Your task to perform on an android device: Go to ESPN.com Image 0: 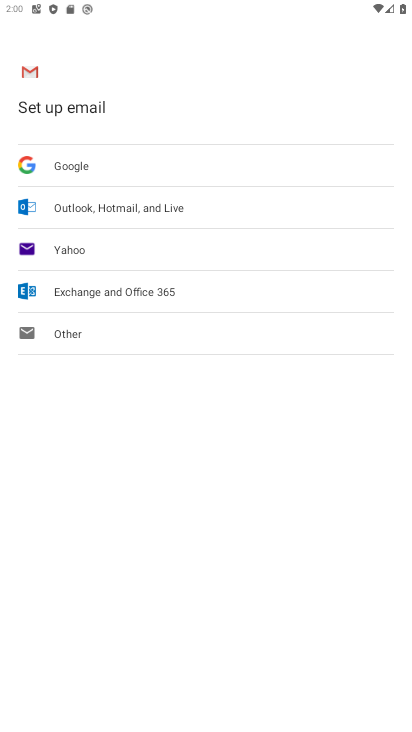
Step 0: press home button
Your task to perform on an android device: Go to ESPN.com Image 1: 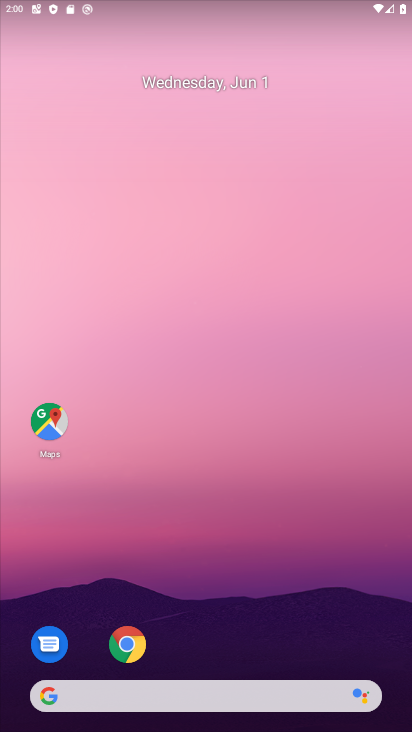
Step 1: click (125, 640)
Your task to perform on an android device: Go to ESPN.com Image 2: 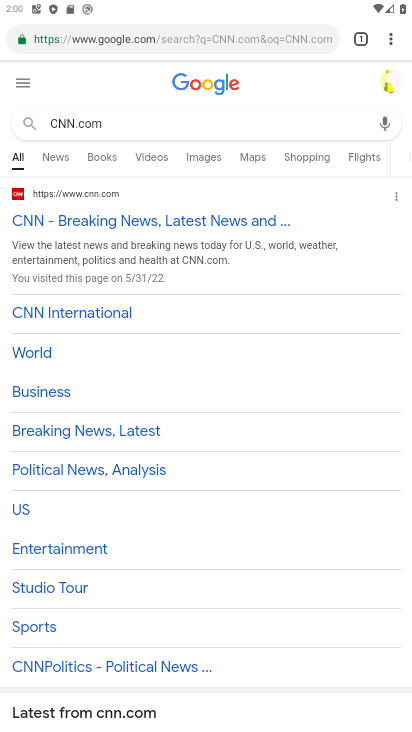
Step 2: click (132, 31)
Your task to perform on an android device: Go to ESPN.com Image 3: 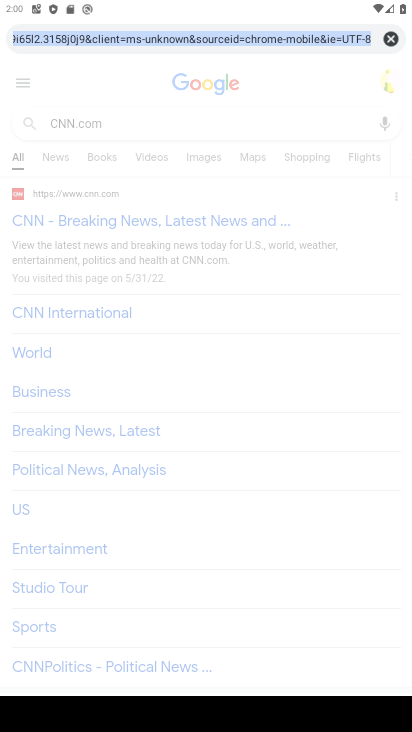
Step 3: type "ESPN.com"
Your task to perform on an android device: Go to ESPN.com Image 4: 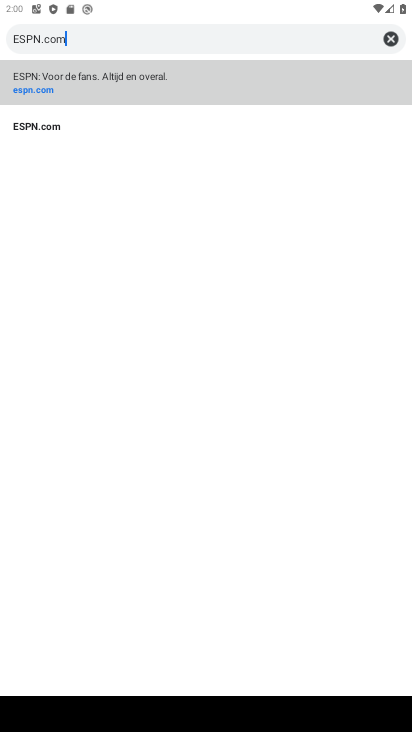
Step 4: click (27, 128)
Your task to perform on an android device: Go to ESPN.com Image 5: 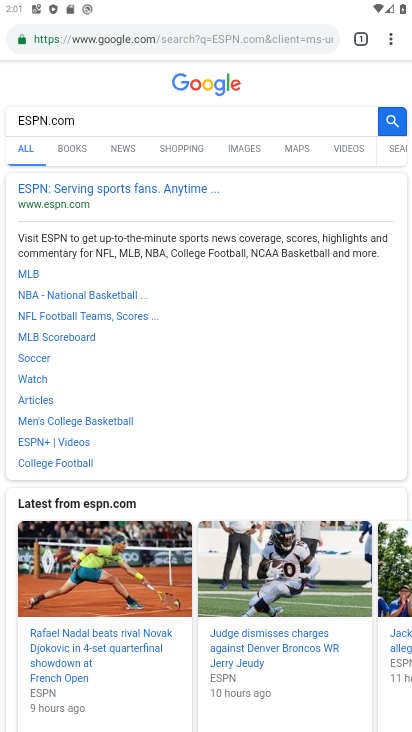
Step 5: task complete